Your task to perform on an android device: turn on improve location accuracy Image 0: 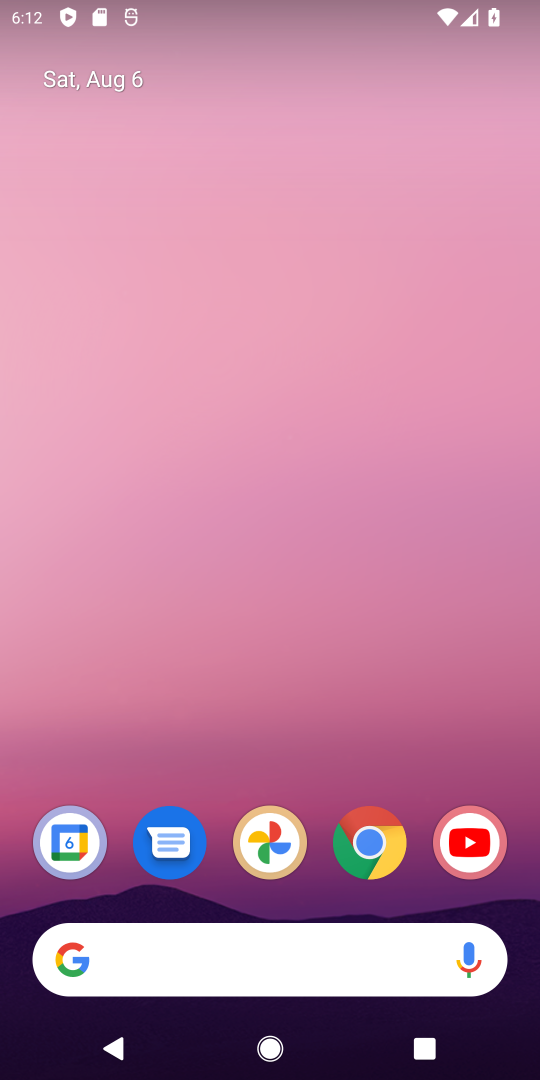
Step 0: drag from (228, 975) to (254, 206)
Your task to perform on an android device: turn on improve location accuracy Image 1: 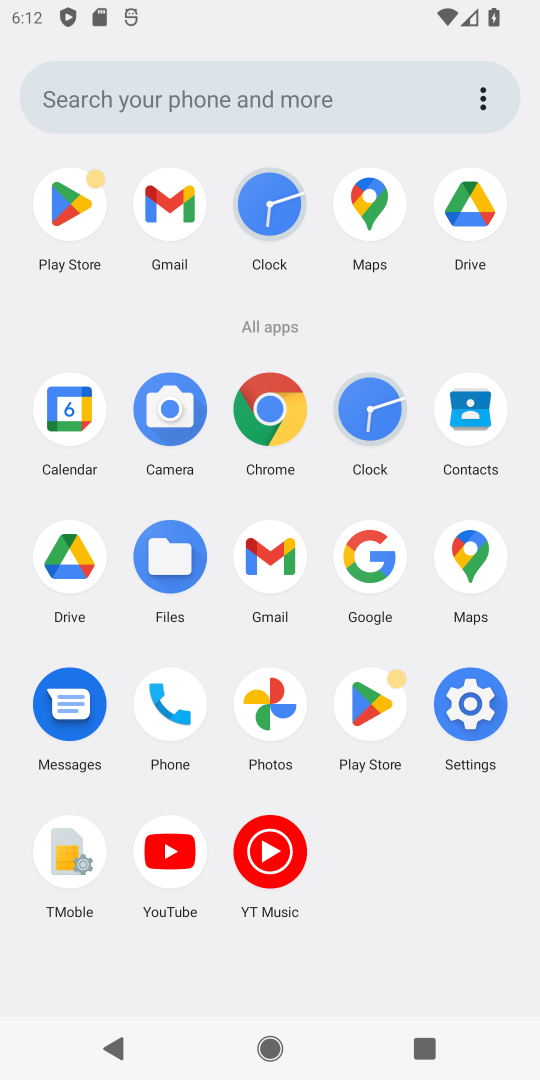
Step 1: click (468, 703)
Your task to perform on an android device: turn on improve location accuracy Image 2: 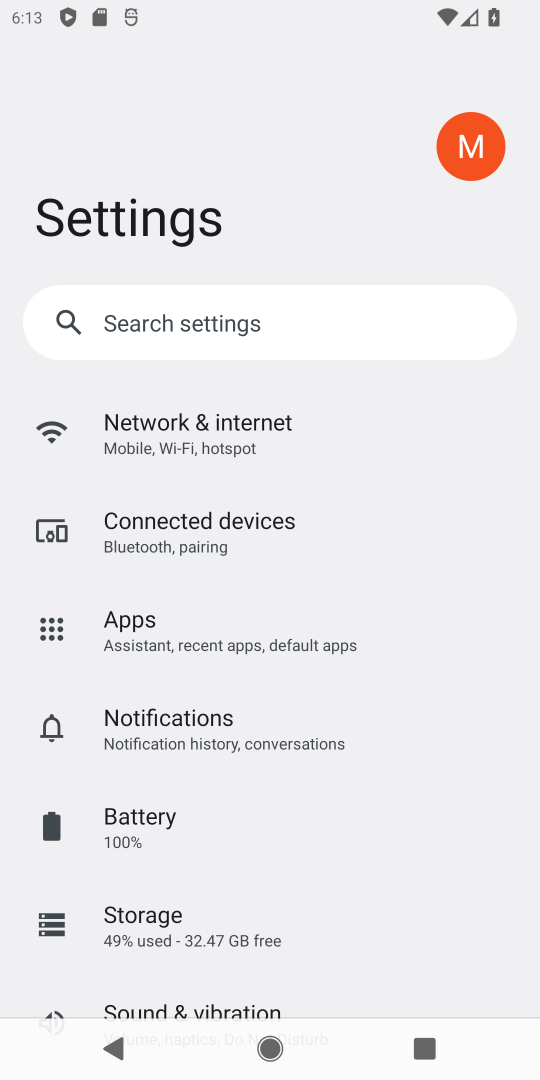
Step 2: drag from (234, 850) to (304, 696)
Your task to perform on an android device: turn on improve location accuracy Image 3: 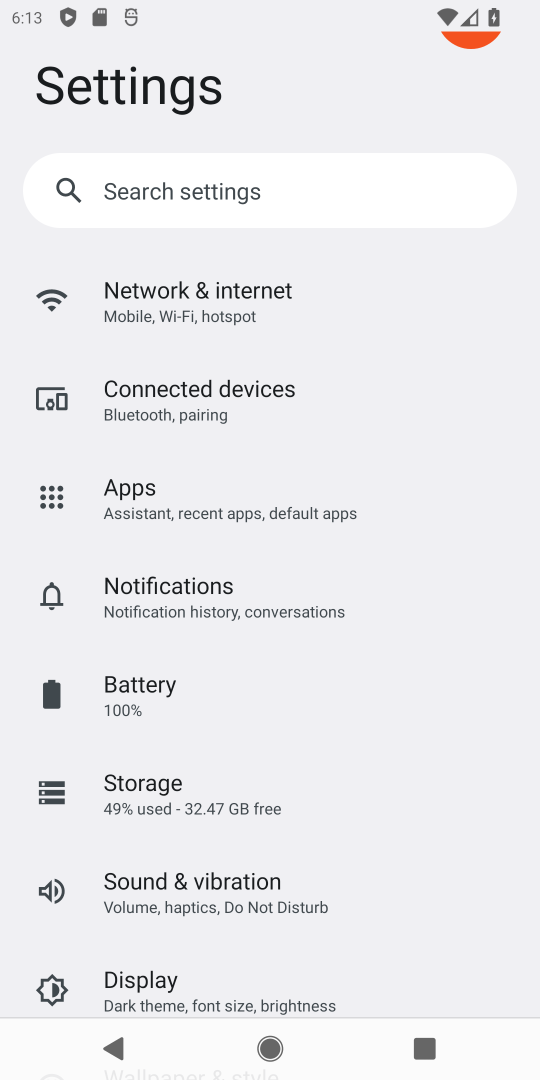
Step 3: drag from (202, 838) to (293, 612)
Your task to perform on an android device: turn on improve location accuracy Image 4: 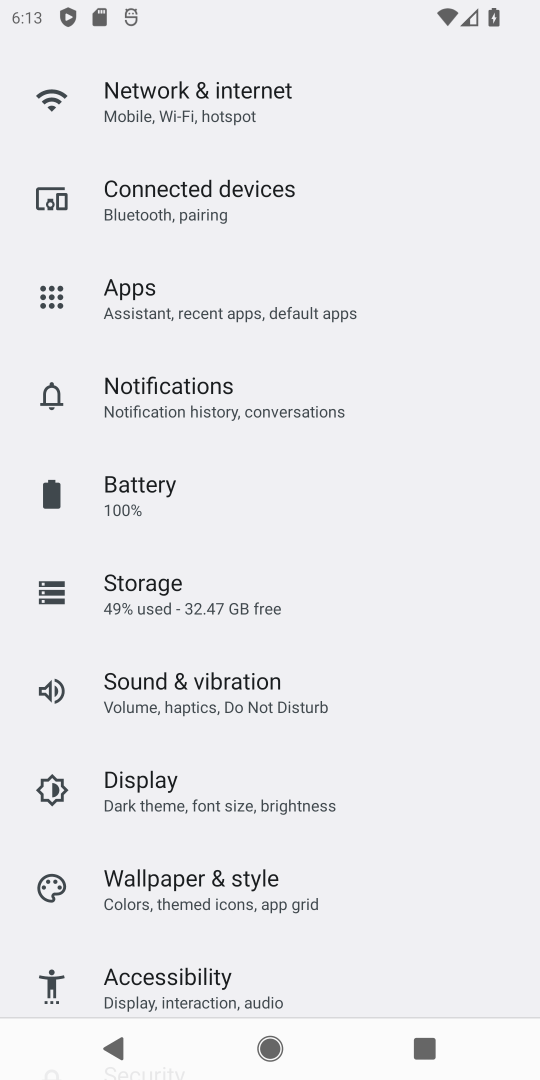
Step 4: drag from (141, 918) to (312, 598)
Your task to perform on an android device: turn on improve location accuracy Image 5: 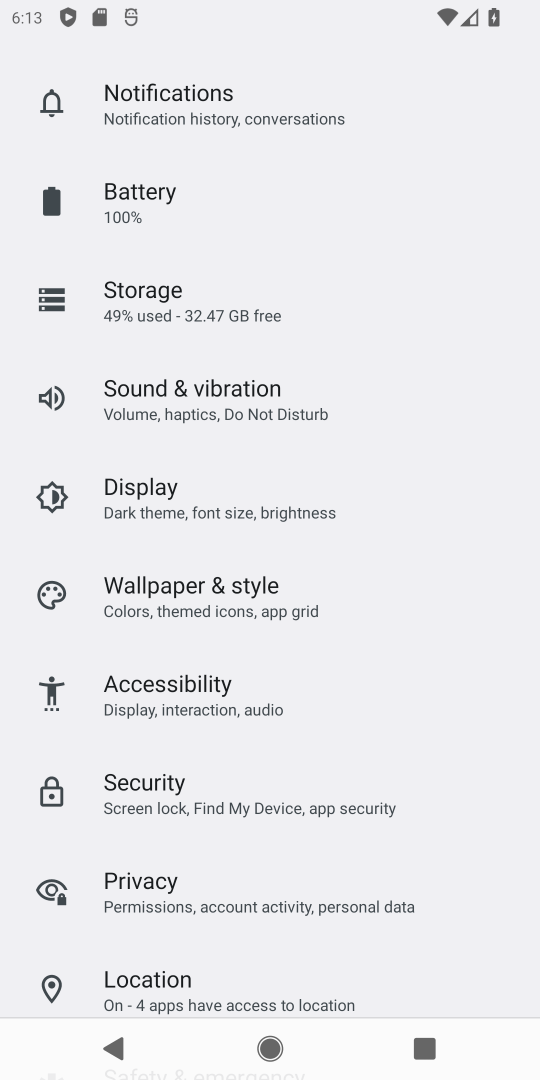
Step 5: drag from (163, 931) to (303, 752)
Your task to perform on an android device: turn on improve location accuracy Image 6: 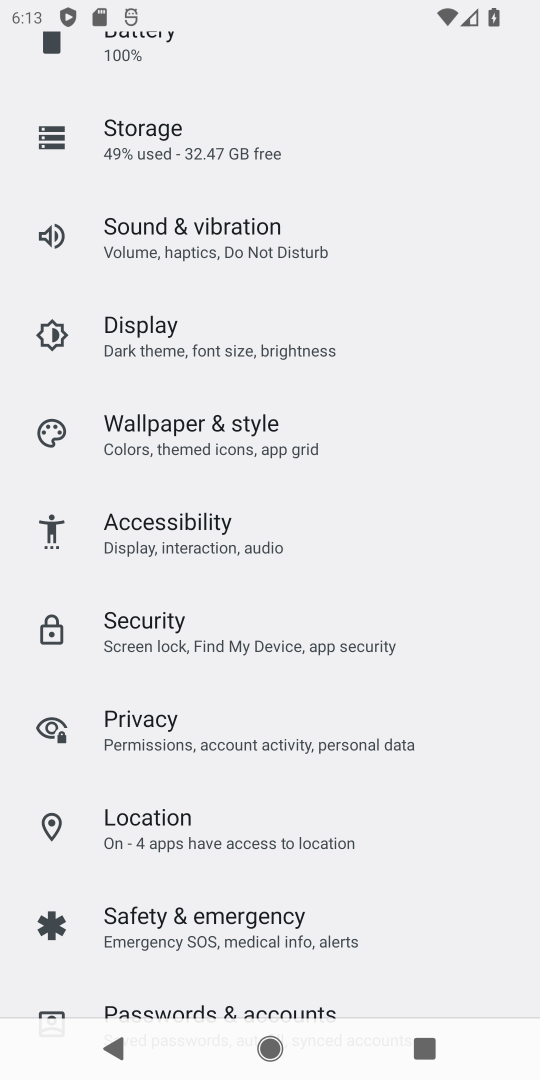
Step 6: click (238, 839)
Your task to perform on an android device: turn on improve location accuracy Image 7: 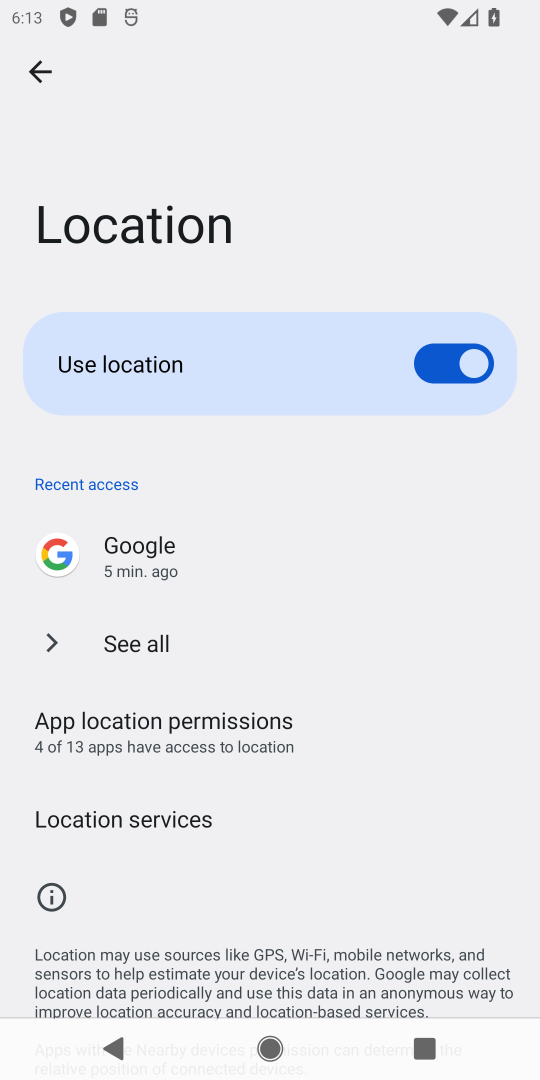
Step 7: click (167, 825)
Your task to perform on an android device: turn on improve location accuracy Image 8: 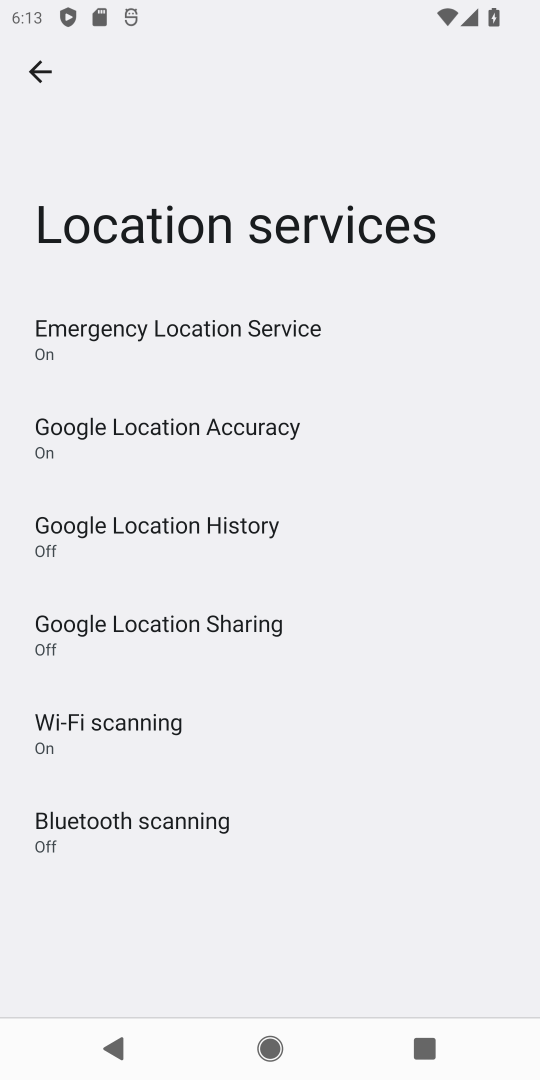
Step 8: click (283, 450)
Your task to perform on an android device: turn on improve location accuracy Image 9: 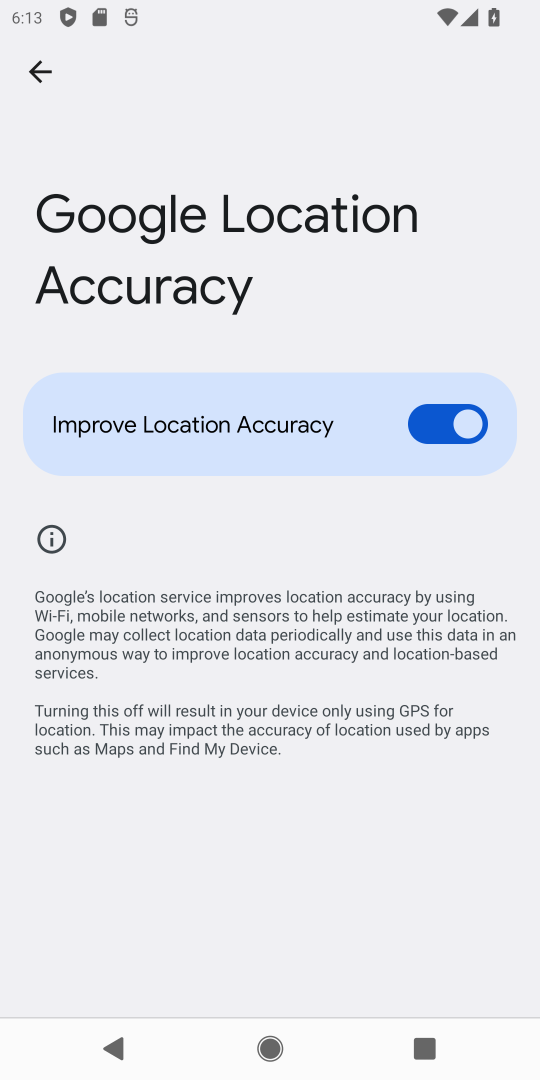
Step 9: task complete